Your task to perform on an android device: Check the weather Image 0: 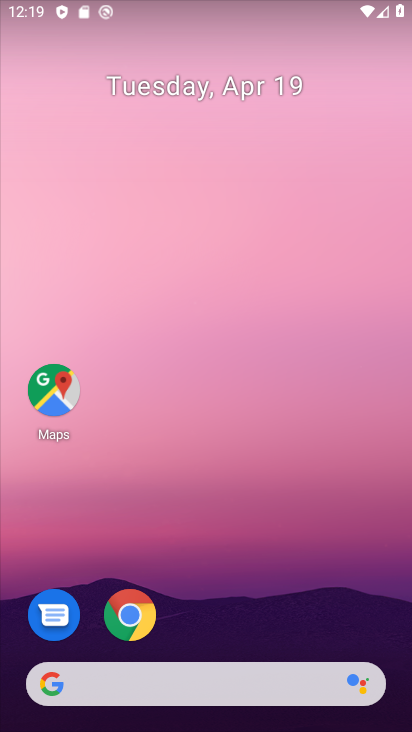
Step 0: drag from (226, 558) to (301, 175)
Your task to perform on an android device: Check the weather Image 1: 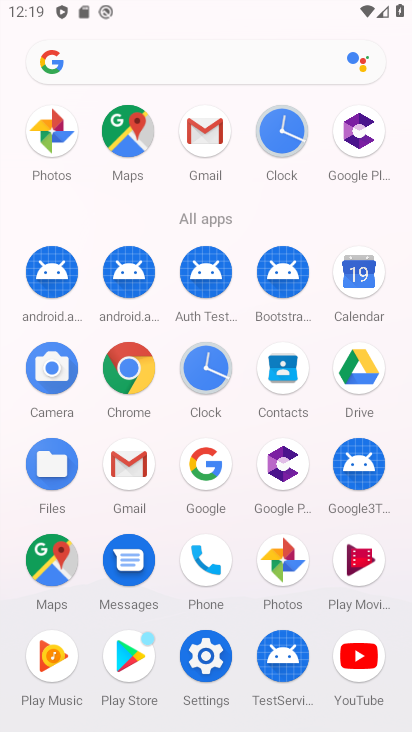
Step 1: click (134, 361)
Your task to perform on an android device: Check the weather Image 2: 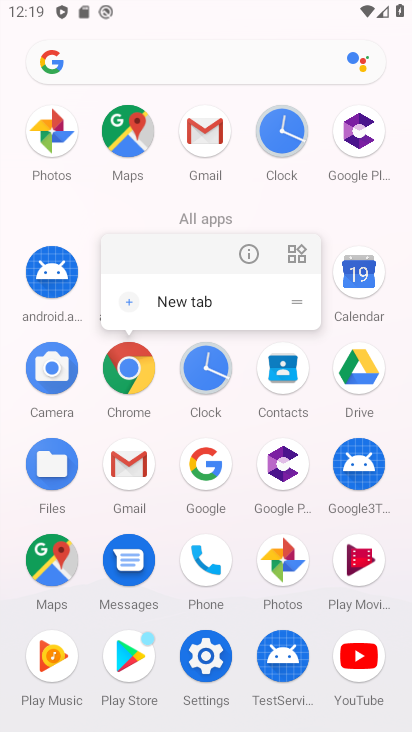
Step 2: click (129, 363)
Your task to perform on an android device: Check the weather Image 3: 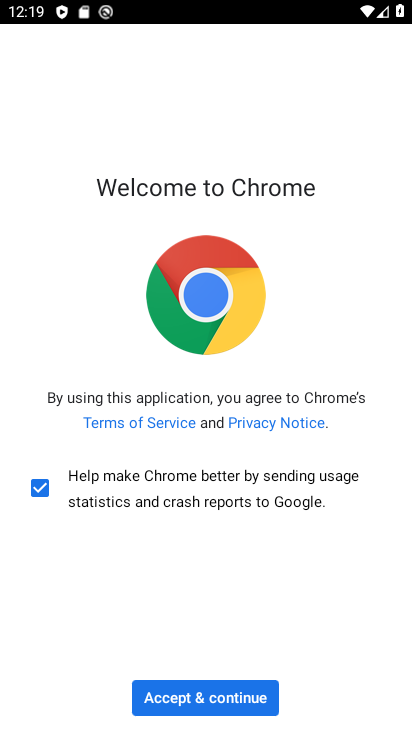
Step 3: click (193, 698)
Your task to perform on an android device: Check the weather Image 4: 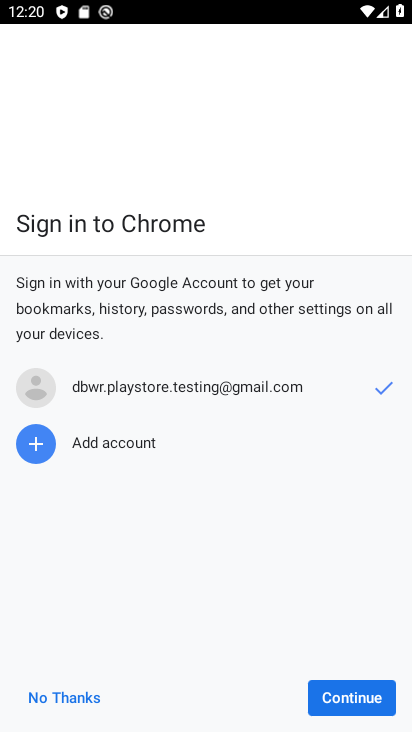
Step 4: click (371, 694)
Your task to perform on an android device: Check the weather Image 5: 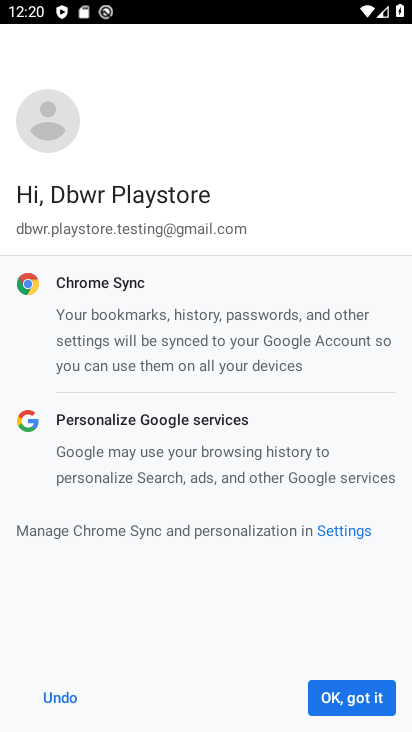
Step 5: click (359, 696)
Your task to perform on an android device: Check the weather Image 6: 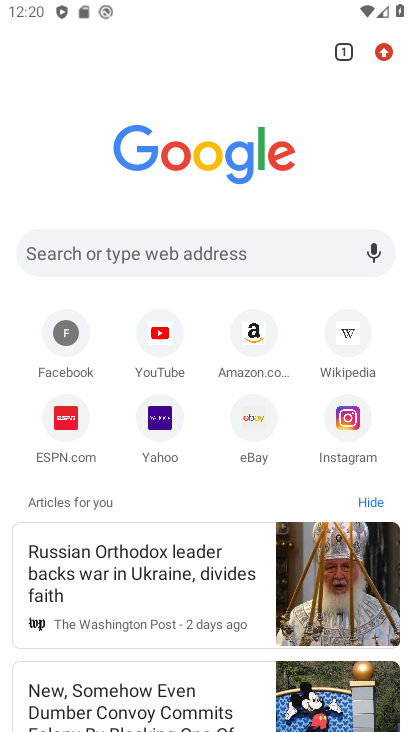
Step 6: click (296, 254)
Your task to perform on an android device: Check the weather Image 7: 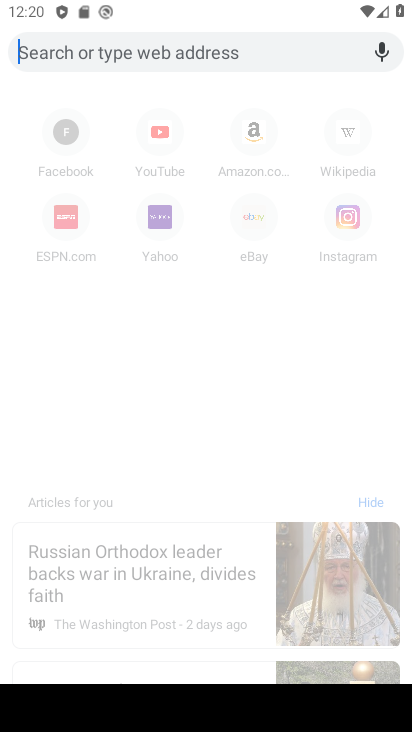
Step 7: type "weather"
Your task to perform on an android device: Check the weather Image 8: 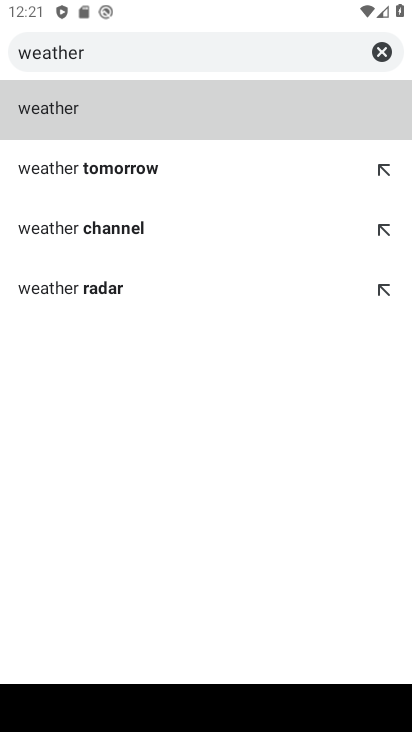
Step 8: click (45, 103)
Your task to perform on an android device: Check the weather Image 9: 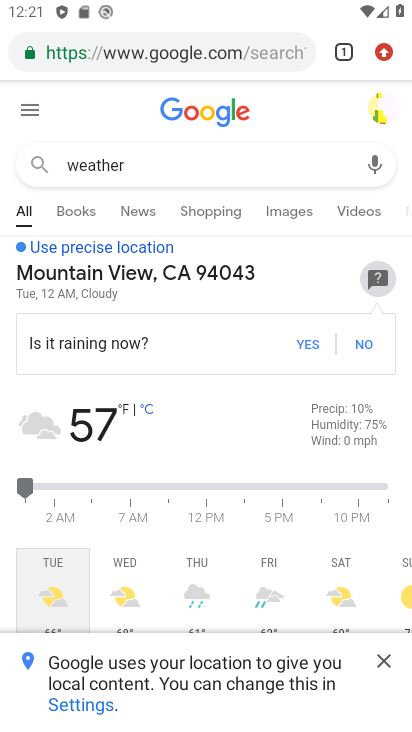
Step 9: click (380, 660)
Your task to perform on an android device: Check the weather Image 10: 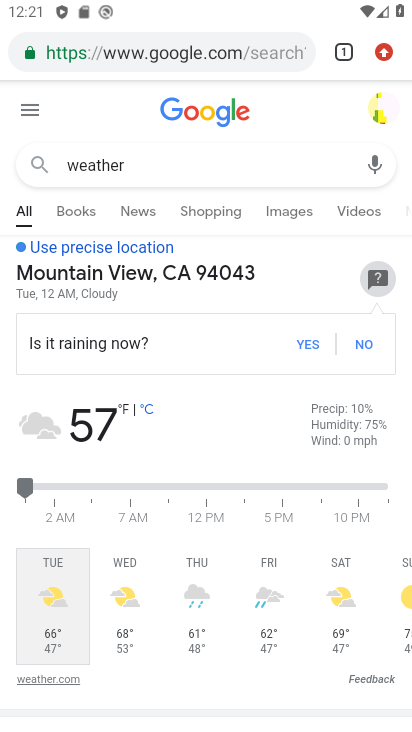
Step 10: task complete